Your task to perform on an android device: Open sound settings Image 0: 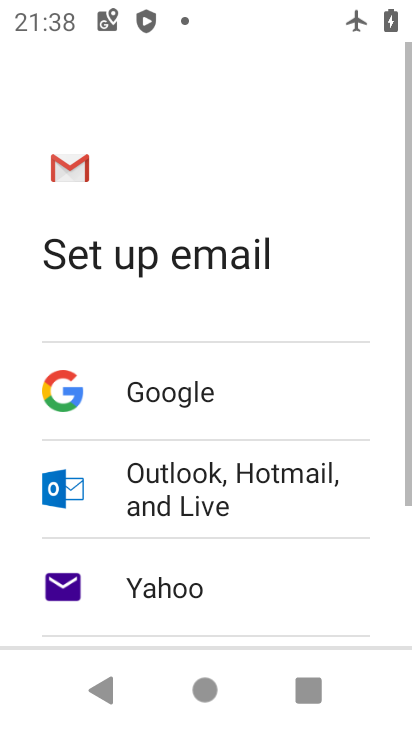
Step 0: press home button
Your task to perform on an android device: Open sound settings Image 1: 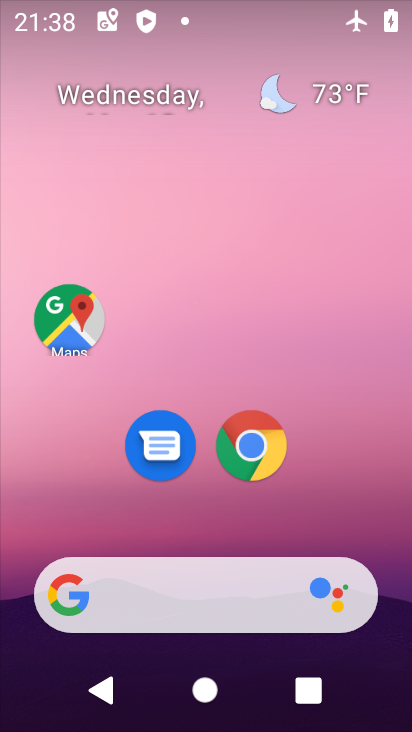
Step 1: drag from (313, 526) to (336, 312)
Your task to perform on an android device: Open sound settings Image 2: 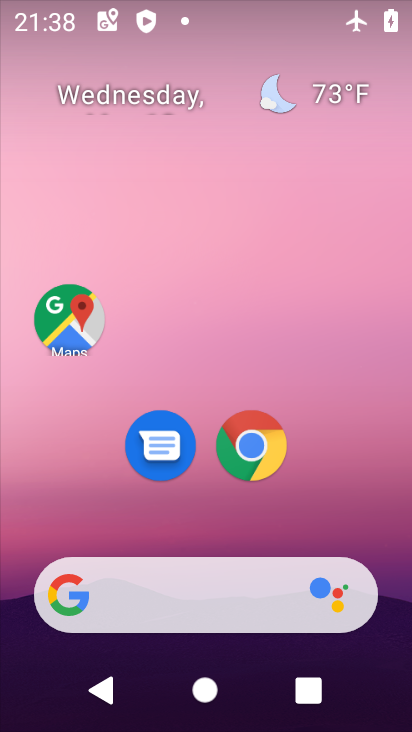
Step 2: drag from (327, 457) to (339, 79)
Your task to perform on an android device: Open sound settings Image 3: 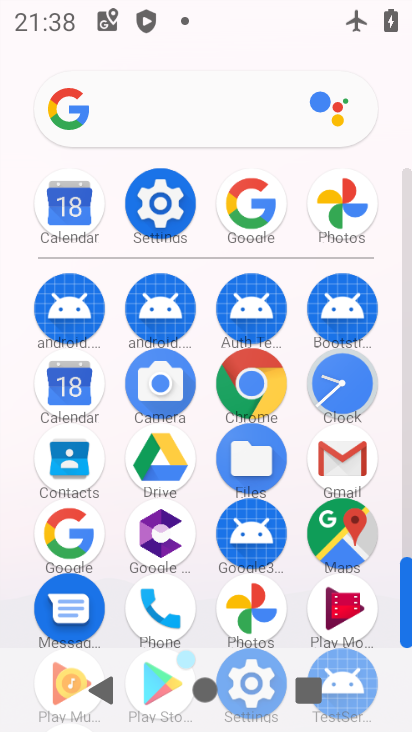
Step 3: click (149, 206)
Your task to perform on an android device: Open sound settings Image 4: 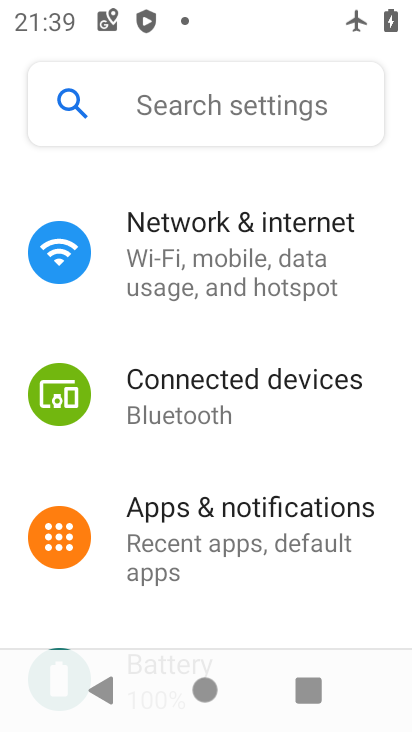
Step 4: drag from (288, 603) to (309, 175)
Your task to perform on an android device: Open sound settings Image 5: 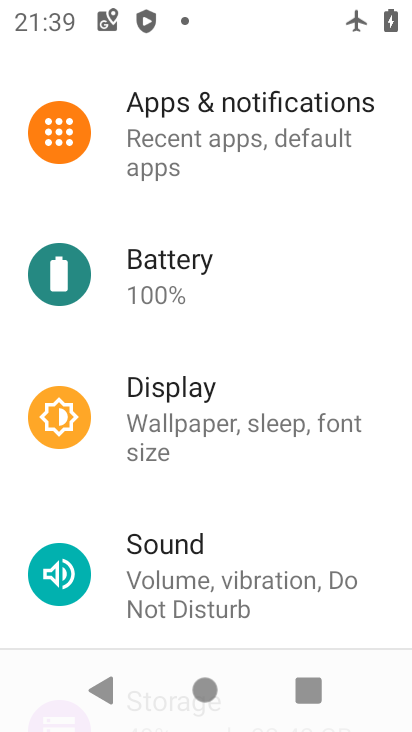
Step 5: click (219, 555)
Your task to perform on an android device: Open sound settings Image 6: 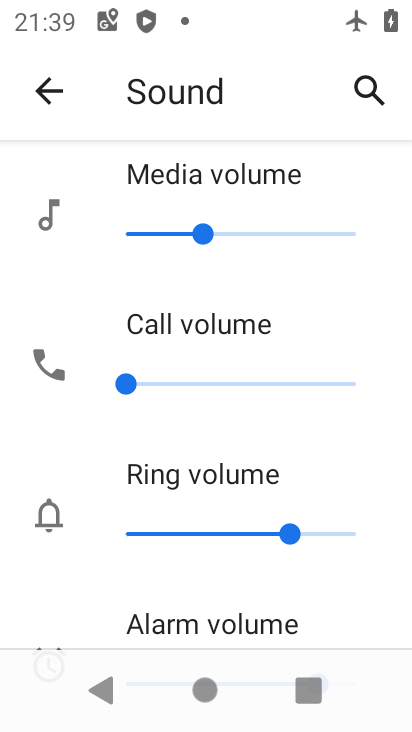
Step 6: task complete